Your task to perform on an android device: find snoozed emails in the gmail app Image 0: 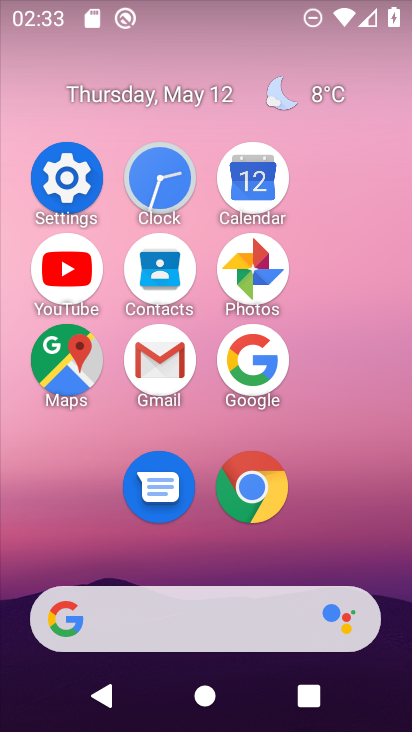
Step 0: click (142, 354)
Your task to perform on an android device: find snoozed emails in the gmail app Image 1: 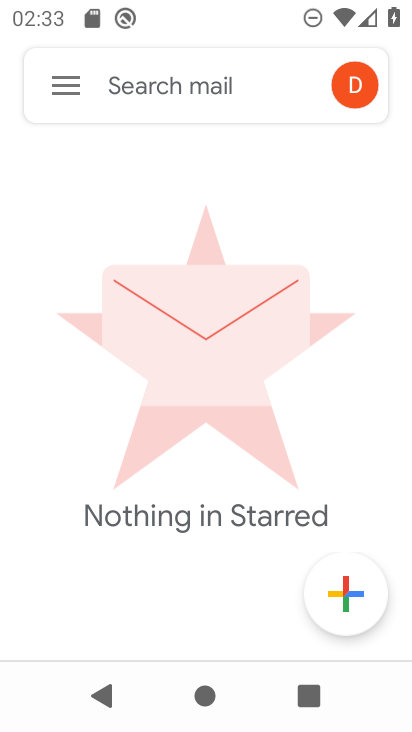
Step 1: click (48, 74)
Your task to perform on an android device: find snoozed emails in the gmail app Image 2: 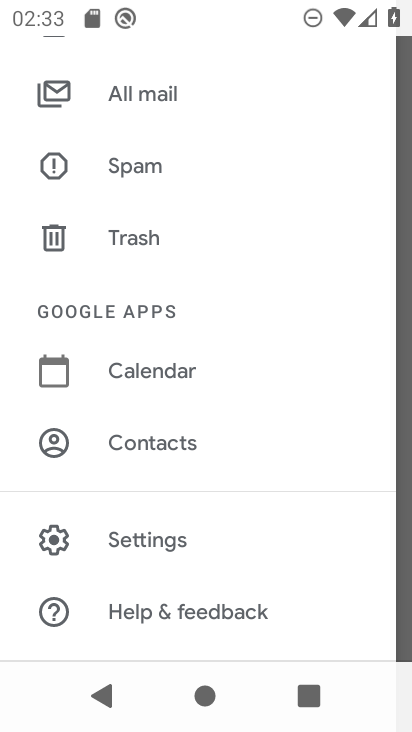
Step 2: drag from (218, 154) to (268, 589)
Your task to perform on an android device: find snoozed emails in the gmail app Image 3: 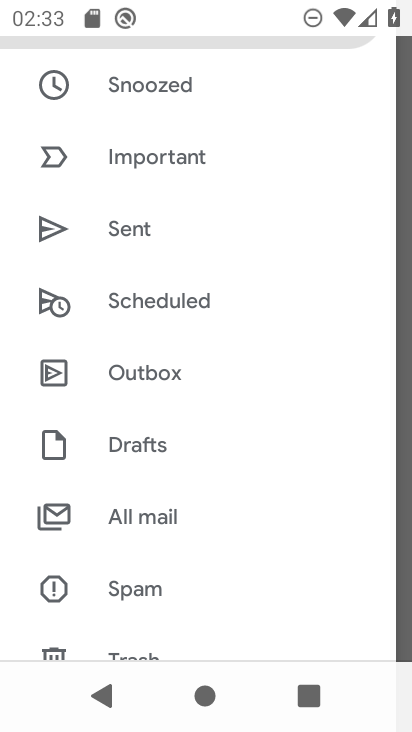
Step 3: click (206, 89)
Your task to perform on an android device: find snoozed emails in the gmail app Image 4: 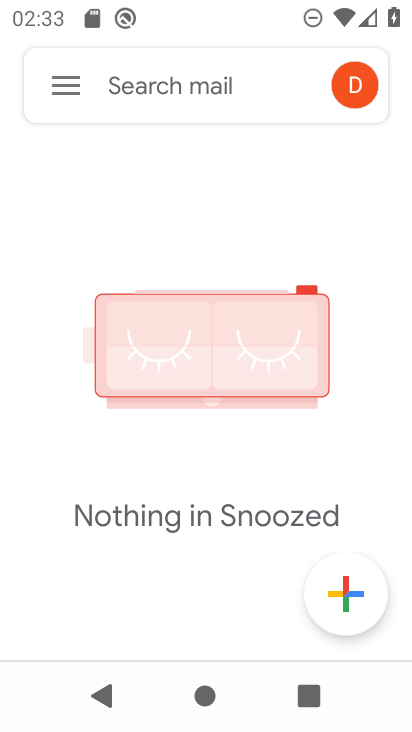
Step 4: task complete